Your task to perform on an android device: turn pop-ups off in chrome Image 0: 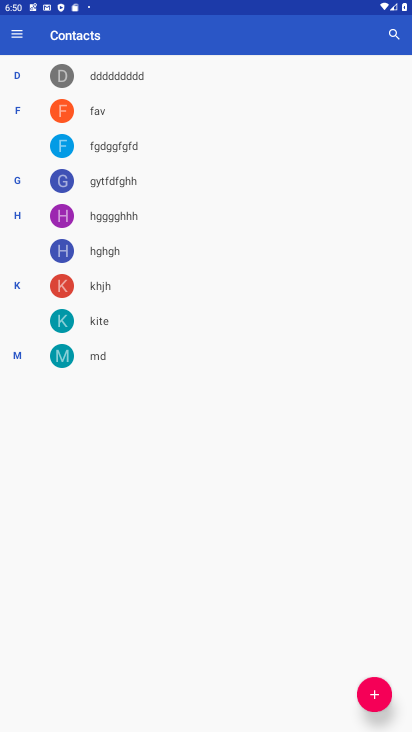
Step 0: press home button
Your task to perform on an android device: turn pop-ups off in chrome Image 1: 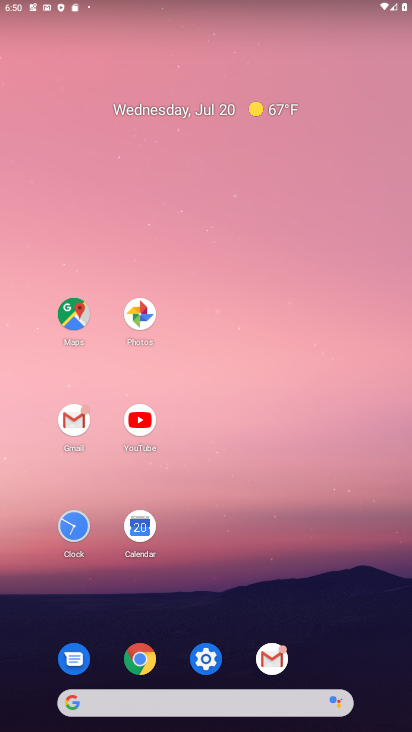
Step 1: click (145, 658)
Your task to perform on an android device: turn pop-ups off in chrome Image 2: 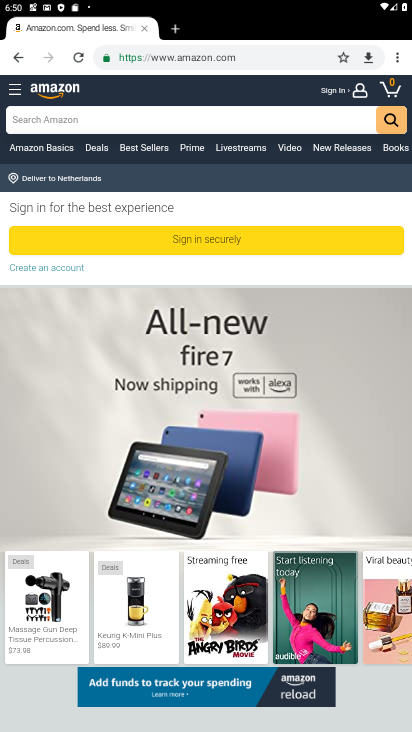
Step 2: click (394, 52)
Your task to perform on an android device: turn pop-ups off in chrome Image 3: 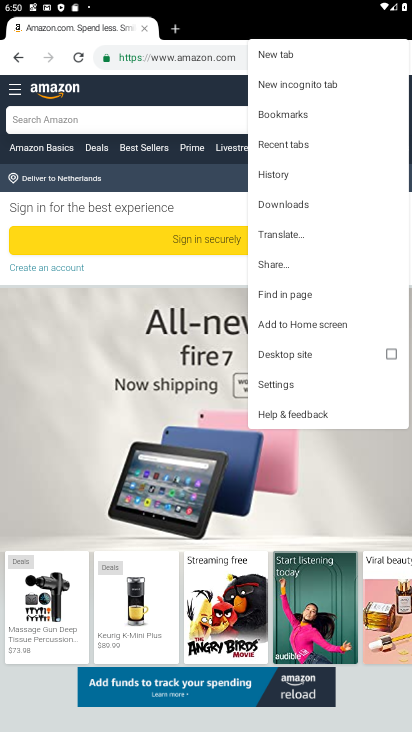
Step 3: click (283, 380)
Your task to perform on an android device: turn pop-ups off in chrome Image 4: 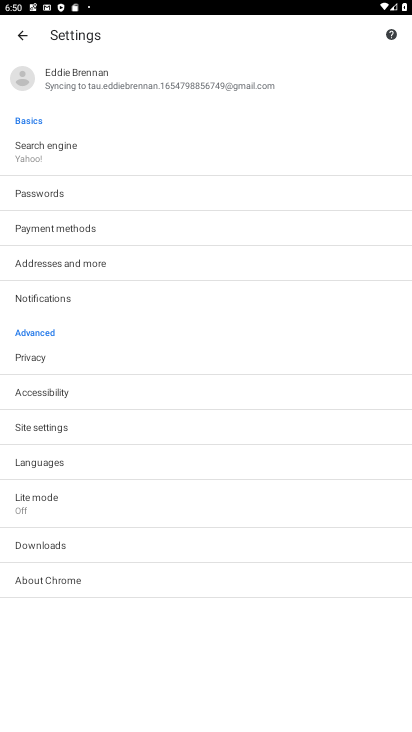
Step 4: click (32, 428)
Your task to perform on an android device: turn pop-ups off in chrome Image 5: 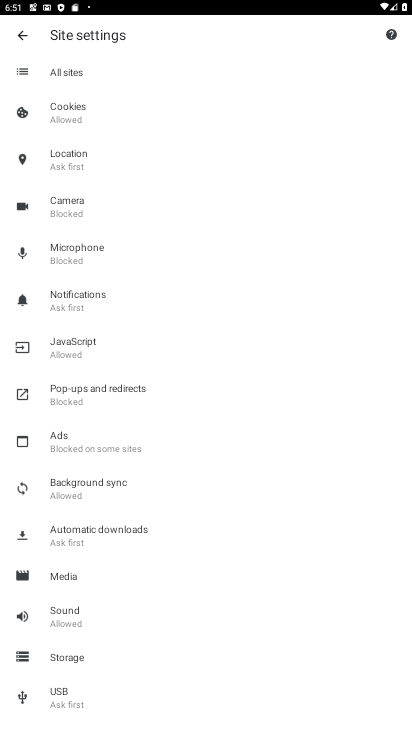
Step 5: click (80, 386)
Your task to perform on an android device: turn pop-ups off in chrome Image 6: 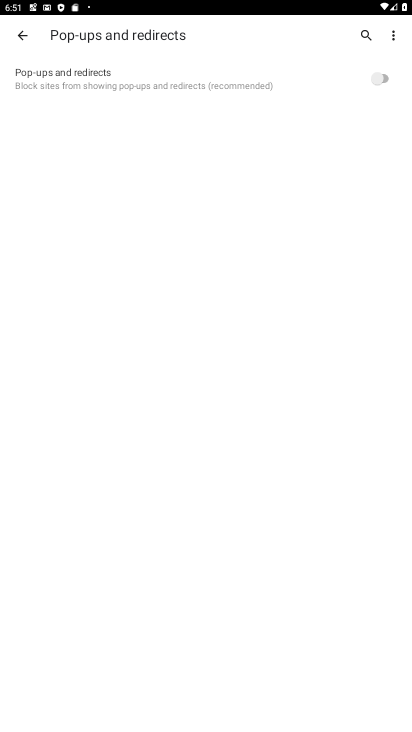
Step 6: task complete